Your task to perform on an android device: open app "Firefox Browser" (install if not already installed) Image 0: 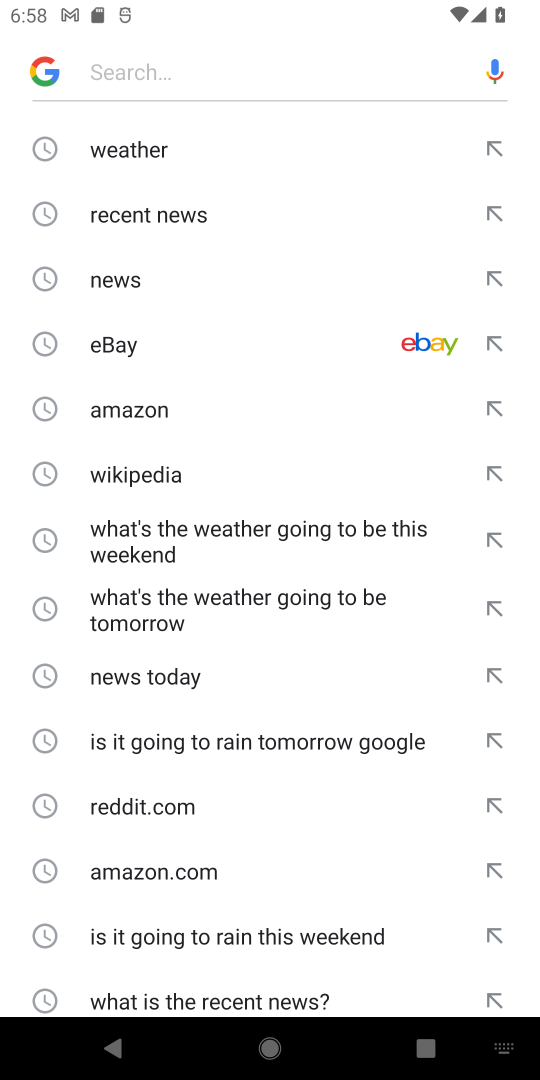
Step 0: press home button
Your task to perform on an android device: open app "Firefox Browser" (install if not already installed) Image 1: 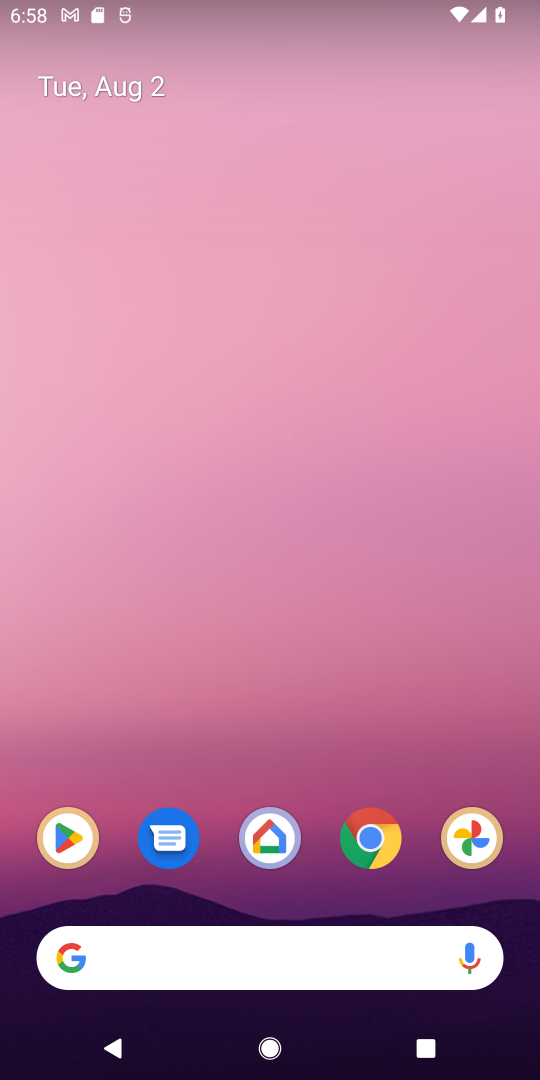
Step 1: click (88, 826)
Your task to perform on an android device: open app "Firefox Browser" (install if not already installed) Image 2: 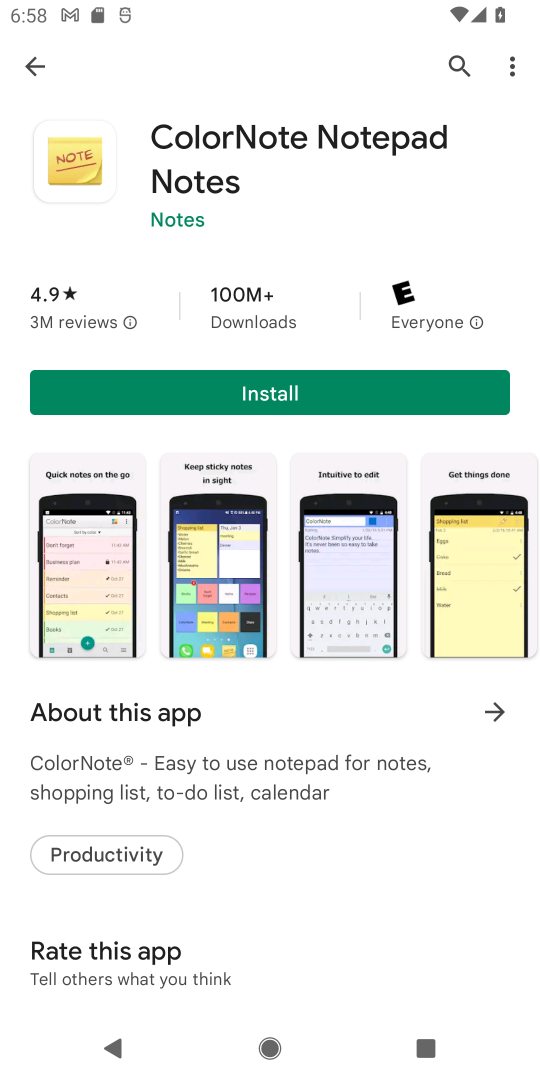
Step 2: click (450, 67)
Your task to perform on an android device: open app "Firefox Browser" (install if not already installed) Image 3: 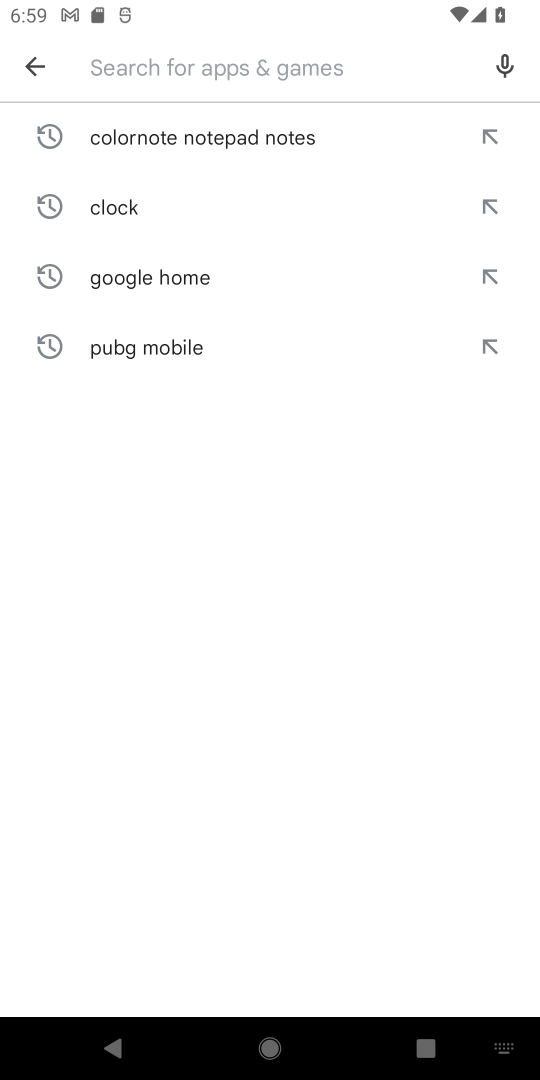
Step 3: type "firefox browser"
Your task to perform on an android device: open app "Firefox Browser" (install if not already installed) Image 4: 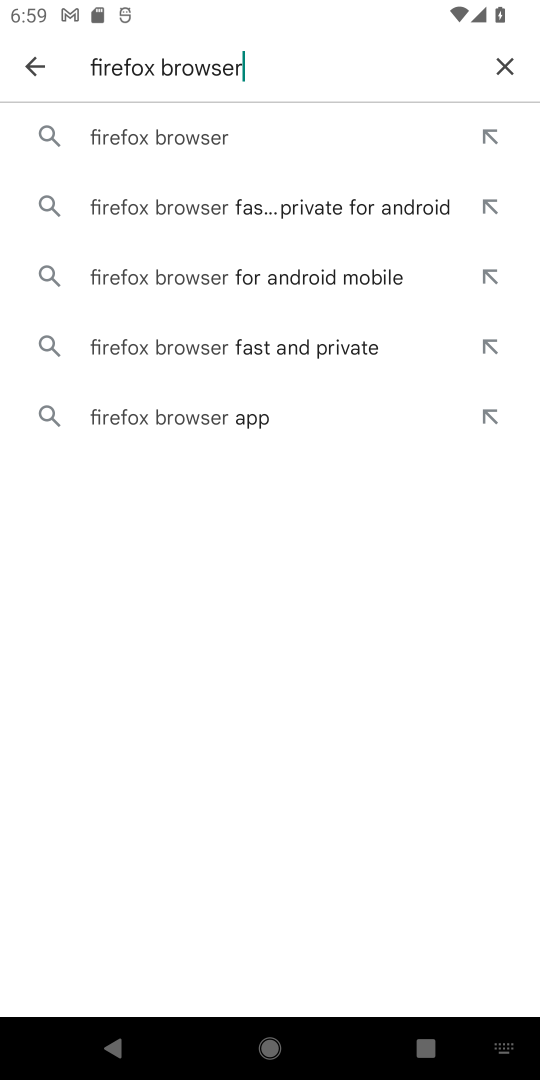
Step 4: click (255, 131)
Your task to perform on an android device: open app "Firefox Browser" (install if not already installed) Image 5: 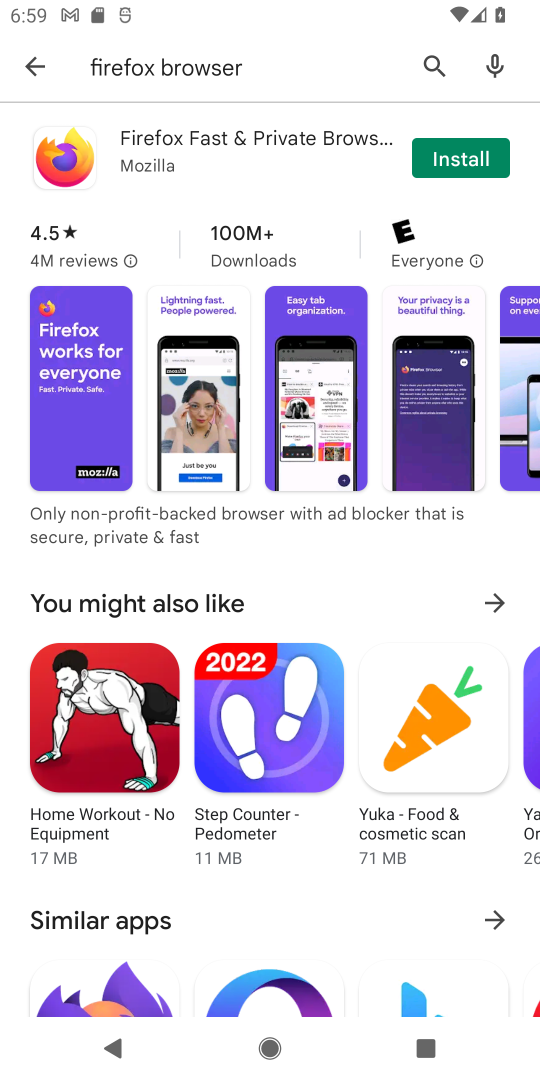
Step 5: click (229, 136)
Your task to perform on an android device: open app "Firefox Browser" (install if not already installed) Image 6: 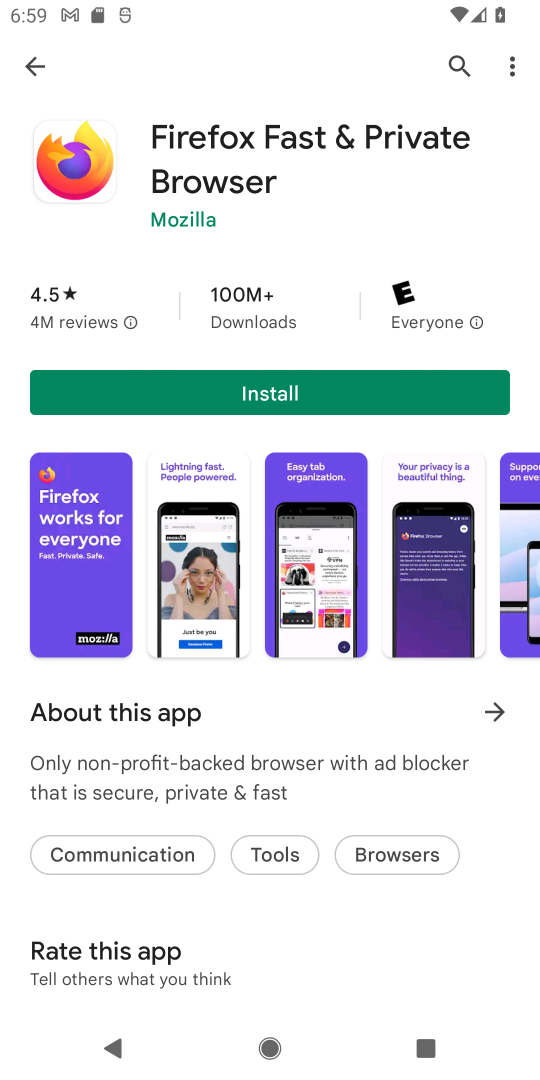
Step 6: click (397, 398)
Your task to perform on an android device: open app "Firefox Browser" (install if not already installed) Image 7: 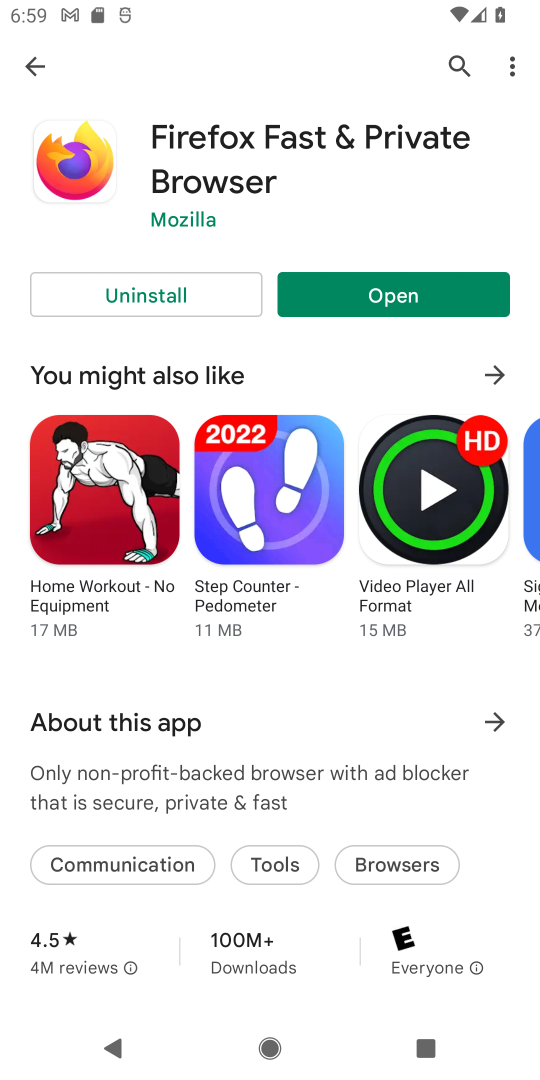
Step 7: task complete